Your task to perform on an android device: Show me the alarms in the clock app Image 0: 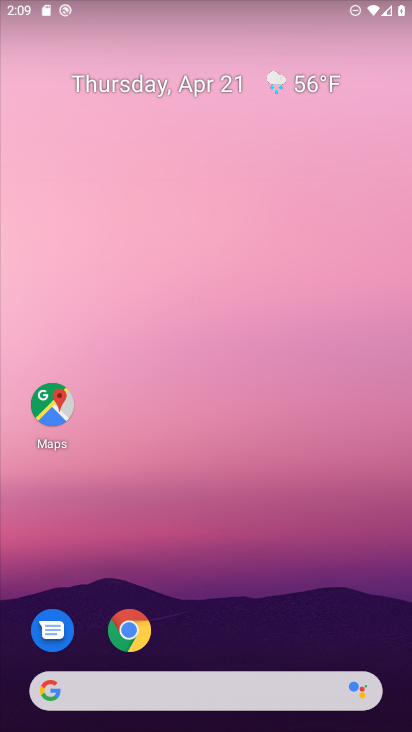
Step 0: drag from (182, 700) to (231, 97)
Your task to perform on an android device: Show me the alarms in the clock app Image 1: 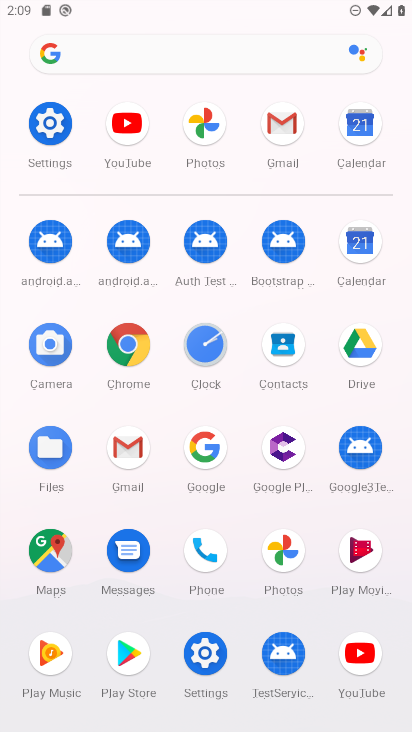
Step 1: click (206, 344)
Your task to perform on an android device: Show me the alarms in the clock app Image 2: 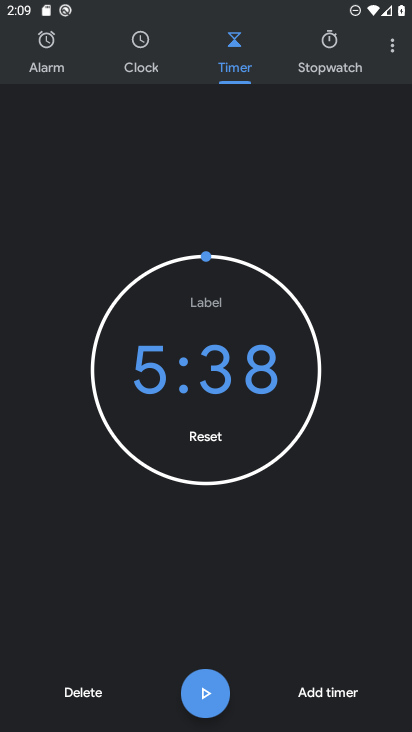
Step 2: click (38, 67)
Your task to perform on an android device: Show me the alarms in the clock app Image 3: 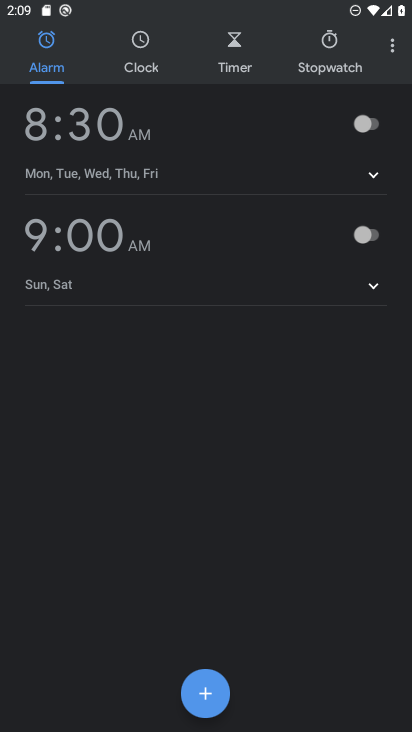
Step 3: task complete